Your task to perform on an android device: change your default location settings in chrome Image 0: 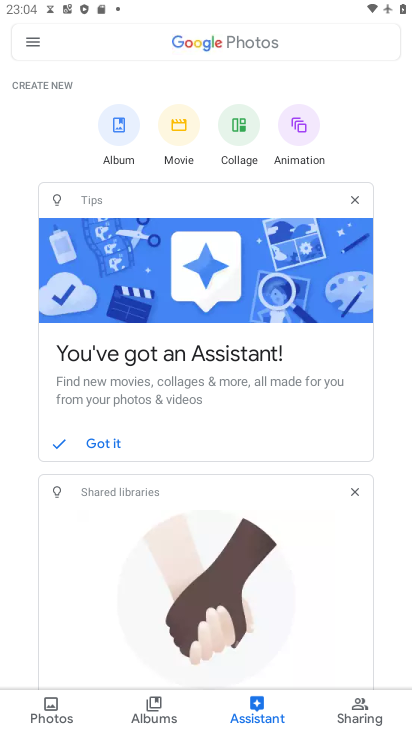
Step 0: press home button
Your task to perform on an android device: change your default location settings in chrome Image 1: 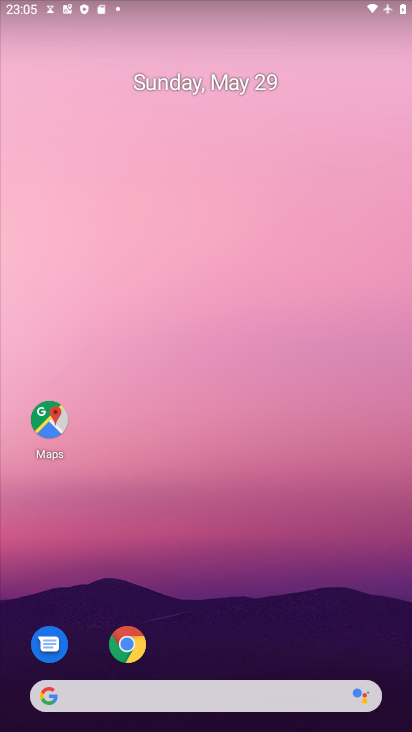
Step 1: drag from (222, 613) to (214, 238)
Your task to perform on an android device: change your default location settings in chrome Image 2: 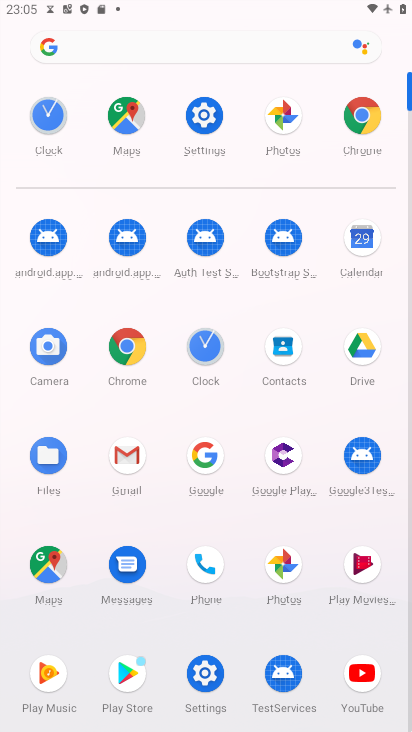
Step 2: click (128, 346)
Your task to perform on an android device: change your default location settings in chrome Image 3: 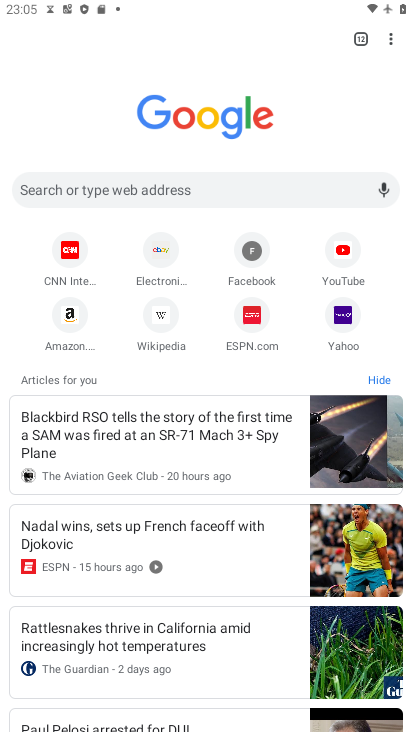
Step 3: click (389, 39)
Your task to perform on an android device: change your default location settings in chrome Image 4: 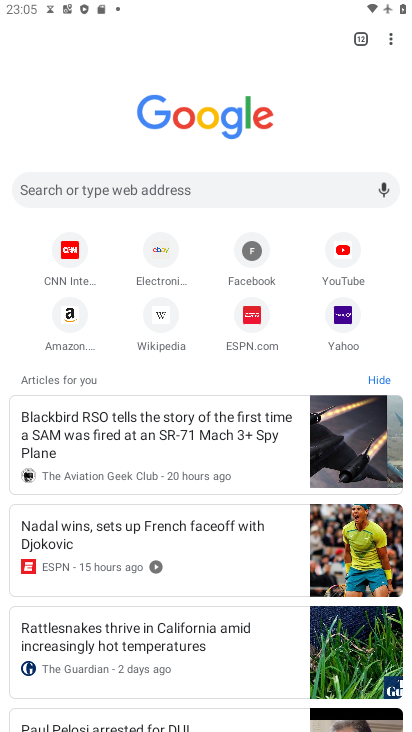
Step 4: click (392, 32)
Your task to perform on an android device: change your default location settings in chrome Image 5: 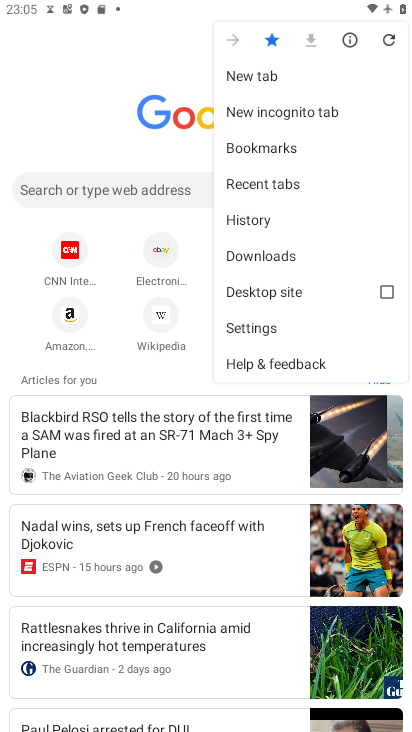
Step 5: click (270, 329)
Your task to perform on an android device: change your default location settings in chrome Image 6: 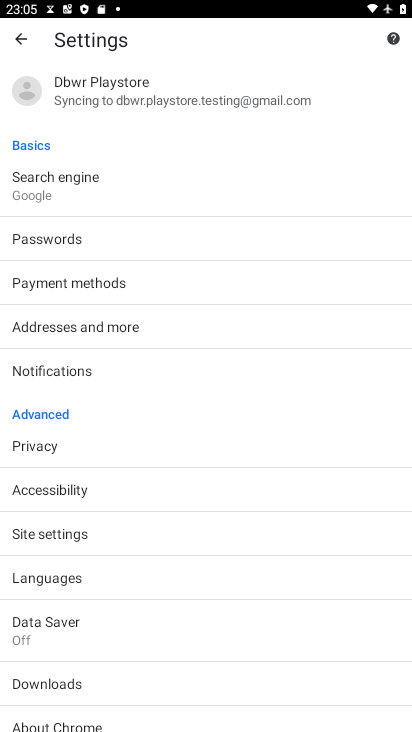
Step 6: drag from (78, 591) to (110, 424)
Your task to perform on an android device: change your default location settings in chrome Image 7: 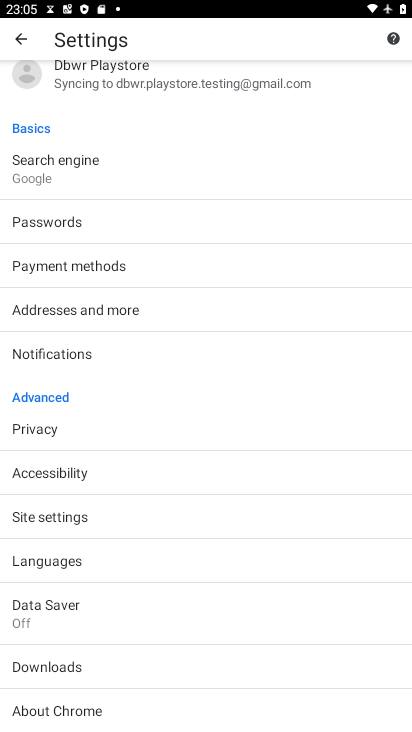
Step 7: drag from (241, 544) to (255, 225)
Your task to perform on an android device: change your default location settings in chrome Image 8: 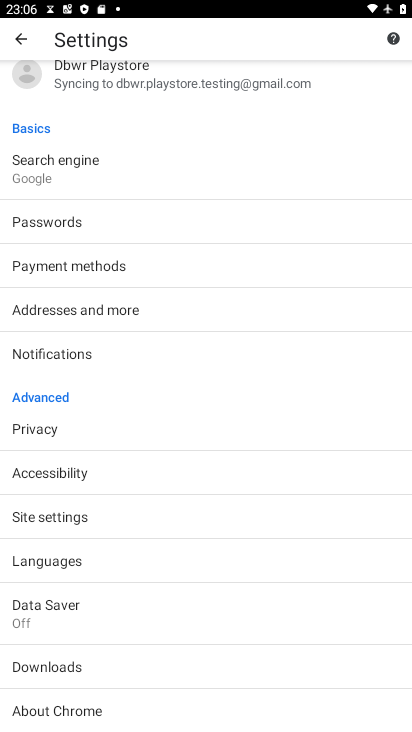
Step 8: click (139, 166)
Your task to perform on an android device: change your default location settings in chrome Image 9: 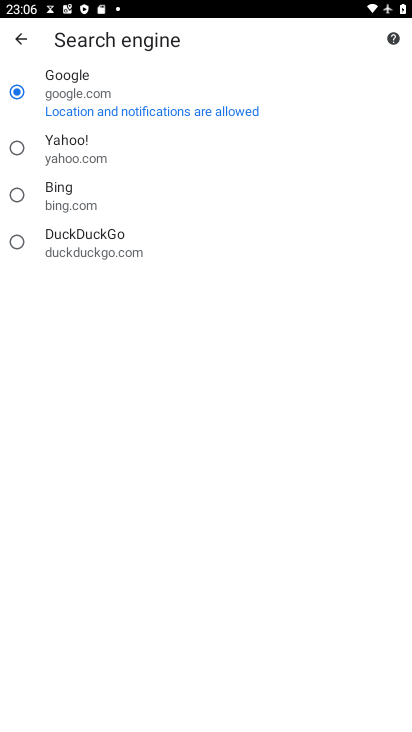
Step 9: task complete